Your task to perform on an android device: toggle sleep mode Image 0: 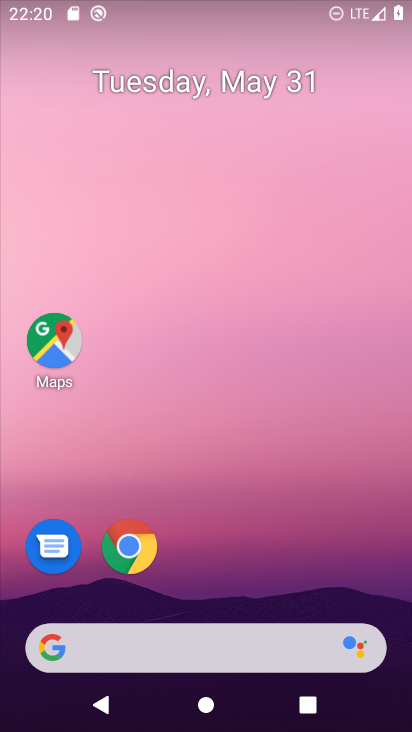
Step 0: drag from (387, 594) to (350, 139)
Your task to perform on an android device: toggle sleep mode Image 1: 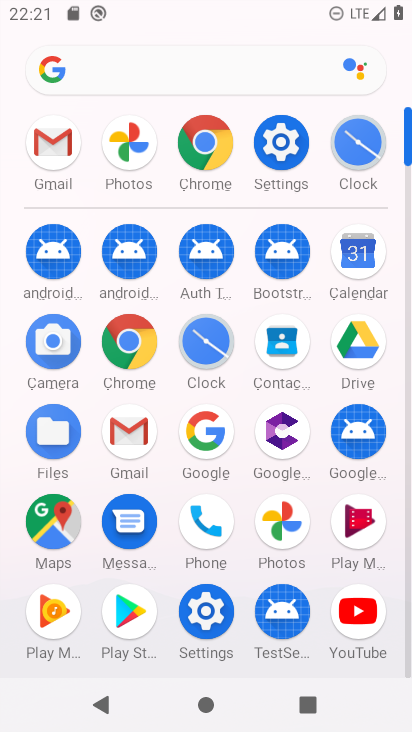
Step 1: click (292, 139)
Your task to perform on an android device: toggle sleep mode Image 2: 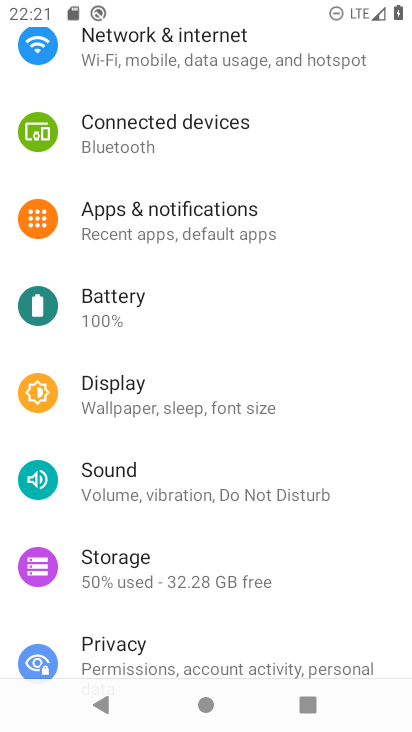
Step 2: drag from (303, 611) to (330, 287)
Your task to perform on an android device: toggle sleep mode Image 3: 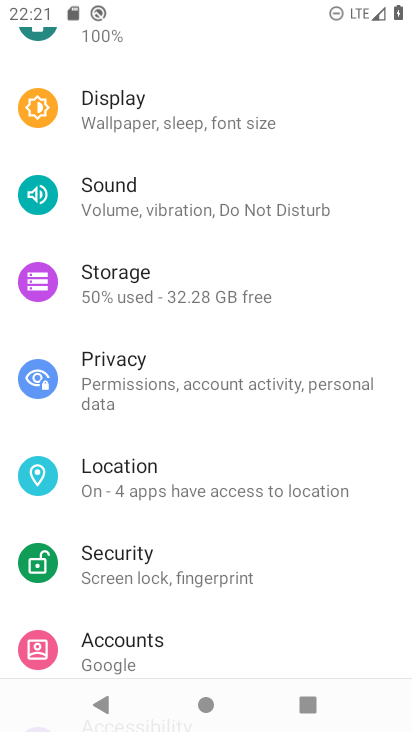
Step 3: click (140, 106)
Your task to perform on an android device: toggle sleep mode Image 4: 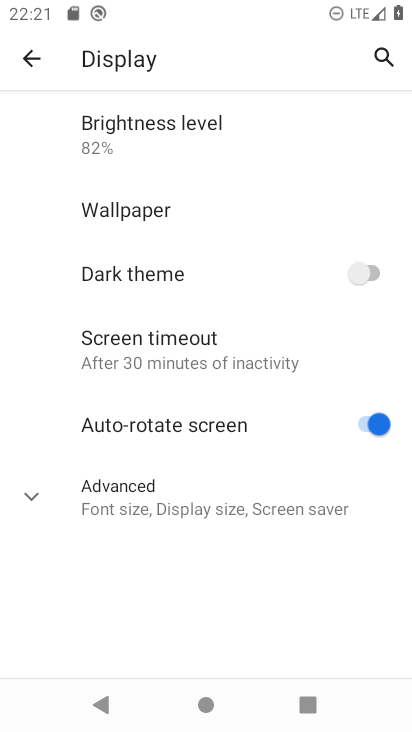
Step 4: drag from (242, 199) to (272, 509)
Your task to perform on an android device: toggle sleep mode Image 5: 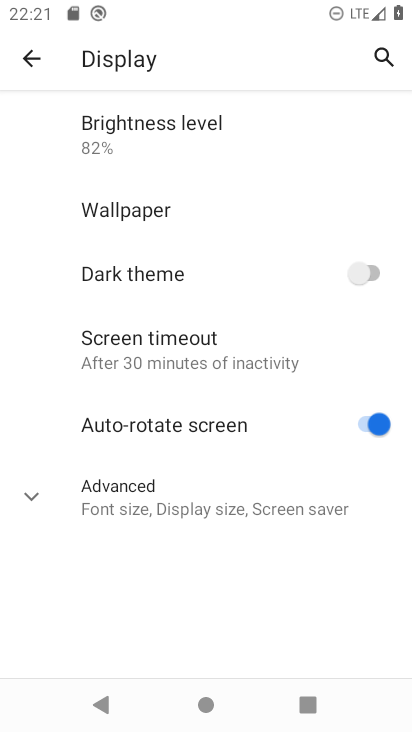
Step 5: click (116, 348)
Your task to perform on an android device: toggle sleep mode Image 6: 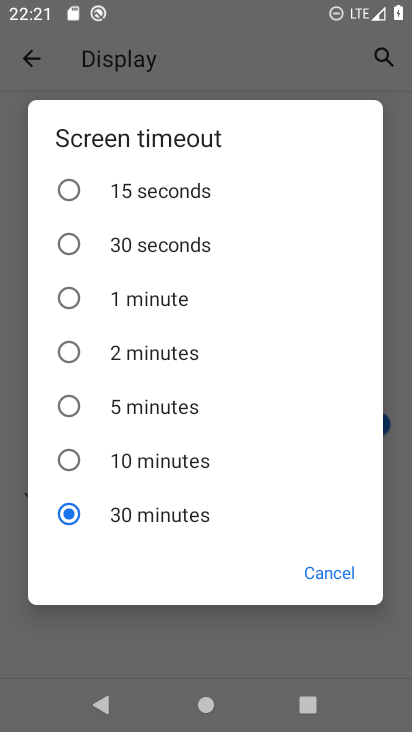
Step 6: click (71, 465)
Your task to perform on an android device: toggle sleep mode Image 7: 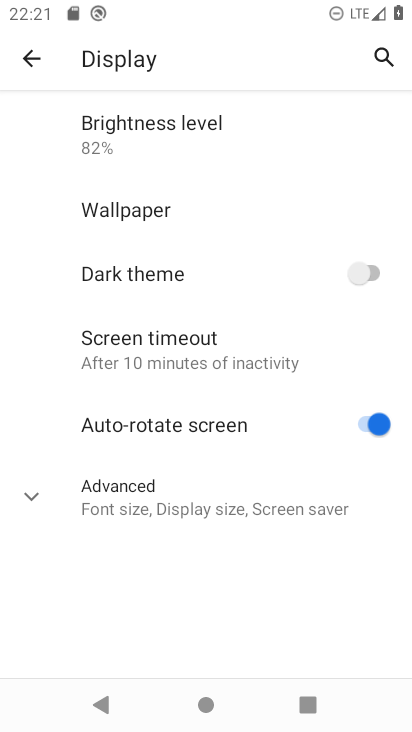
Step 7: task complete